Your task to perform on an android device: turn on location history Image 0: 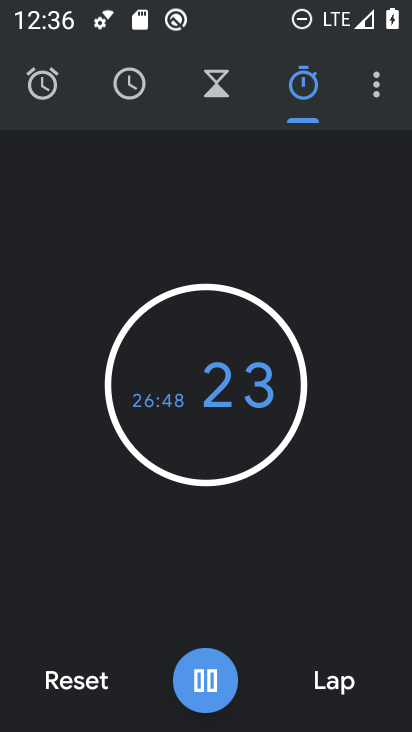
Step 0: press home button
Your task to perform on an android device: turn on location history Image 1: 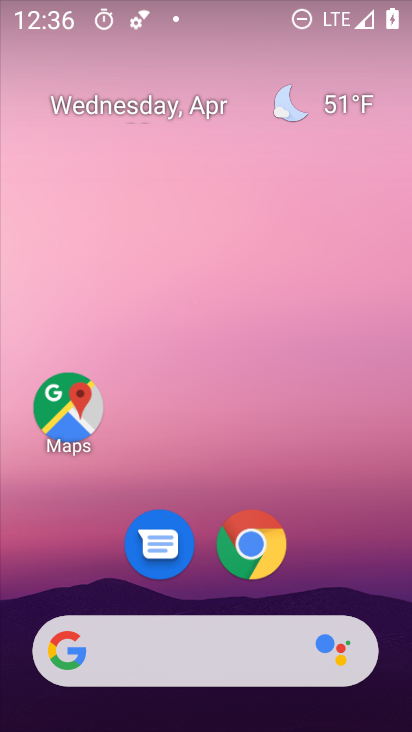
Step 1: drag from (316, 580) to (313, 107)
Your task to perform on an android device: turn on location history Image 2: 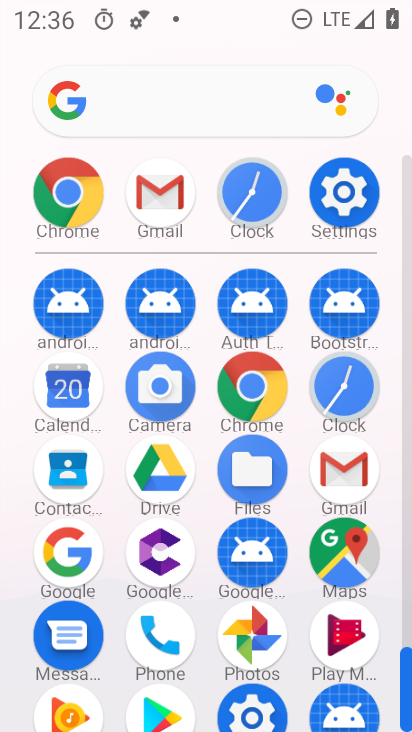
Step 2: click (335, 202)
Your task to perform on an android device: turn on location history Image 3: 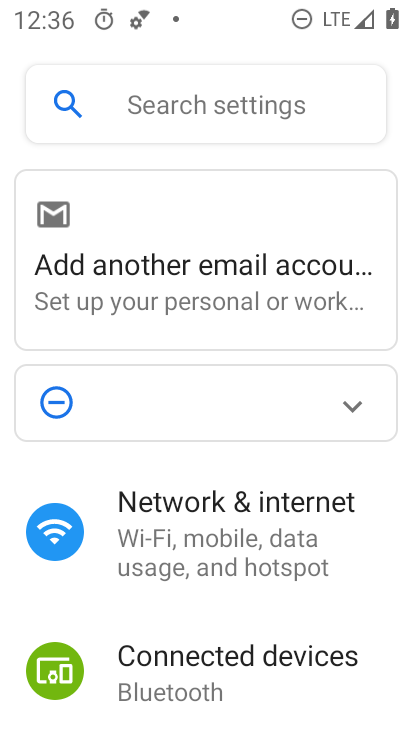
Step 3: drag from (371, 589) to (392, 439)
Your task to perform on an android device: turn on location history Image 4: 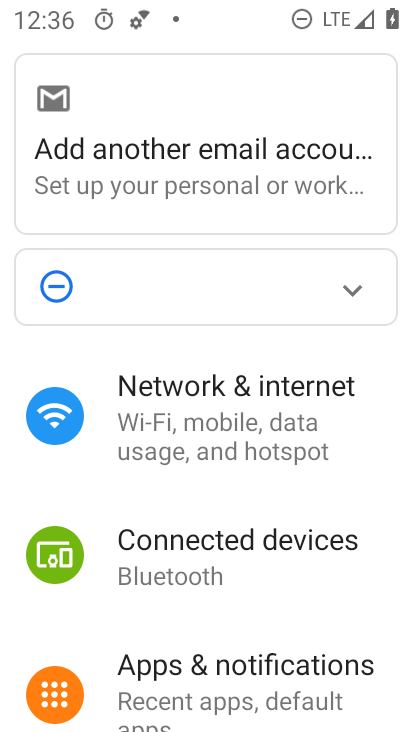
Step 4: drag from (369, 588) to (370, 418)
Your task to perform on an android device: turn on location history Image 5: 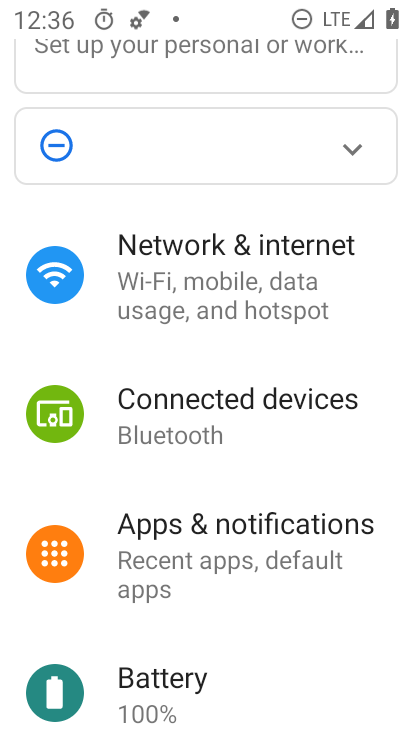
Step 5: drag from (379, 626) to (371, 463)
Your task to perform on an android device: turn on location history Image 6: 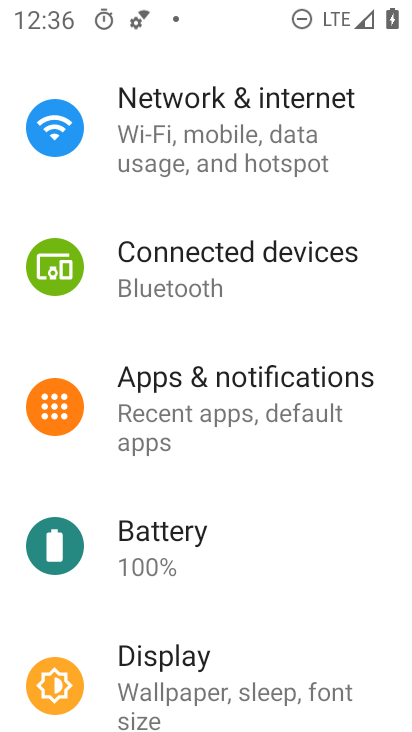
Step 6: drag from (376, 642) to (373, 467)
Your task to perform on an android device: turn on location history Image 7: 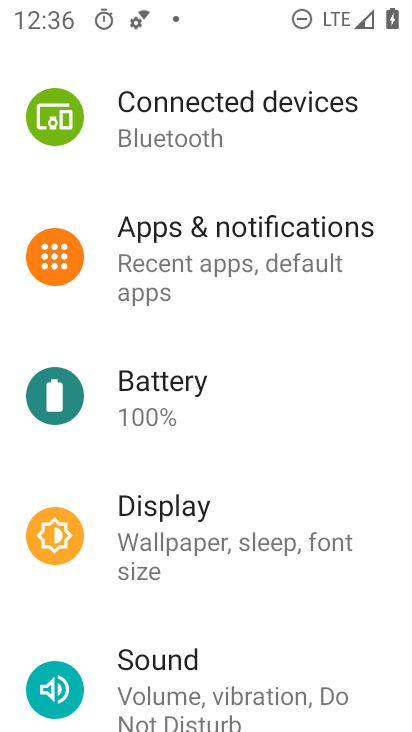
Step 7: drag from (370, 634) to (373, 499)
Your task to perform on an android device: turn on location history Image 8: 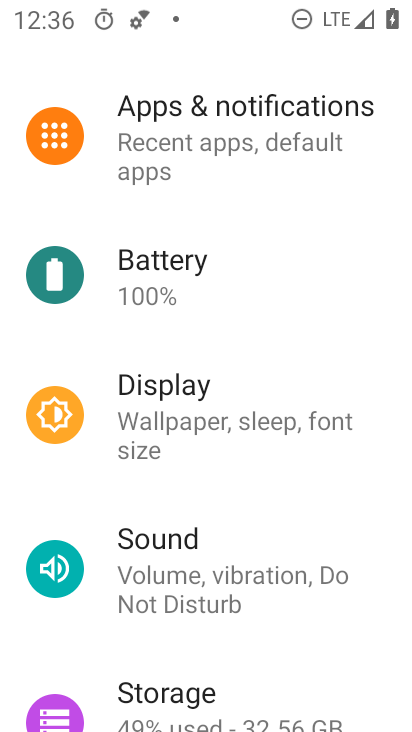
Step 8: drag from (373, 661) to (374, 525)
Your task to perform on an android device: turn on location history Image 9: 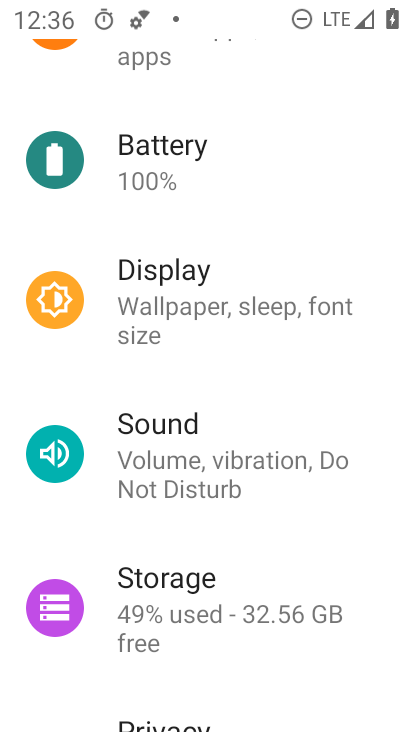
Step 9: drag from (370, 681) to (373, 537)
Your task to perform on an android device: turn on location history Image 10: 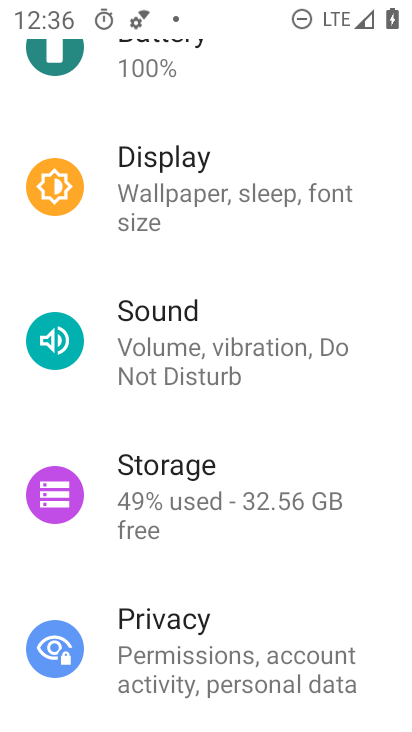
Step 10: drag from (375, 679) to (372, 565)
Your task to perform on an android device: turn on location history Image 11: 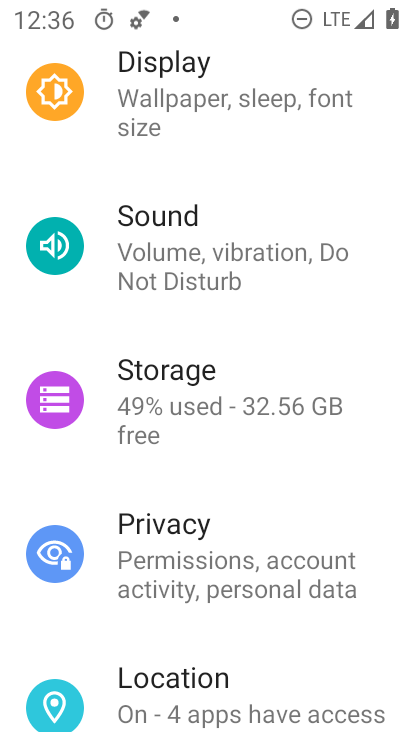
Step 11: drag from (380, 668) to (381, 499)
Your task to perform on an android device: turn on location history Image 12: 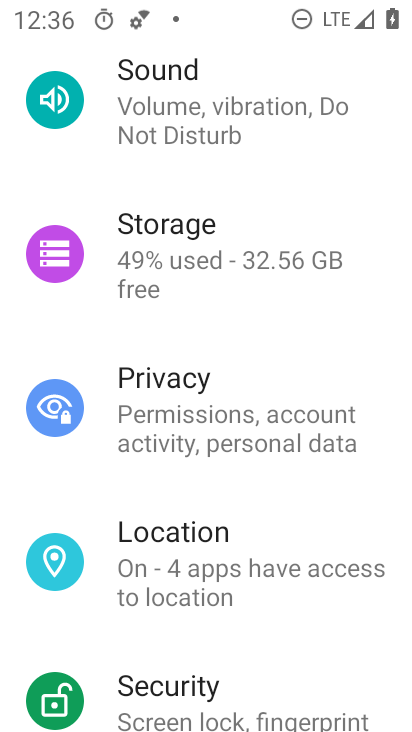
Step 12: drag from (374, 624) to (377, 479)
Your task to perform on an android device: turn on location history Image 13: 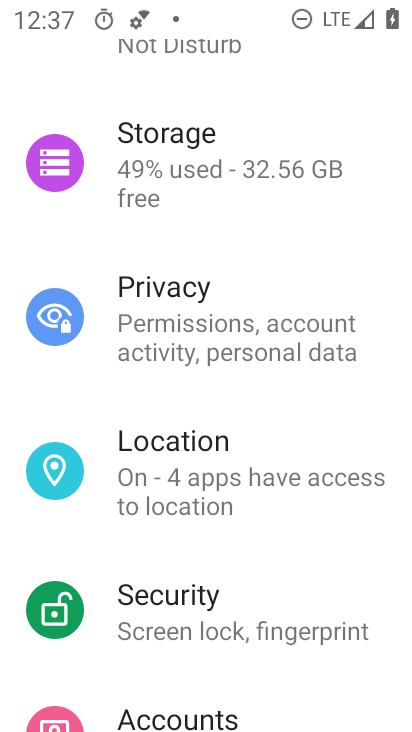
Step 13: click (181, 472)
Your task to perform on an android device: turn on location history Image 14: 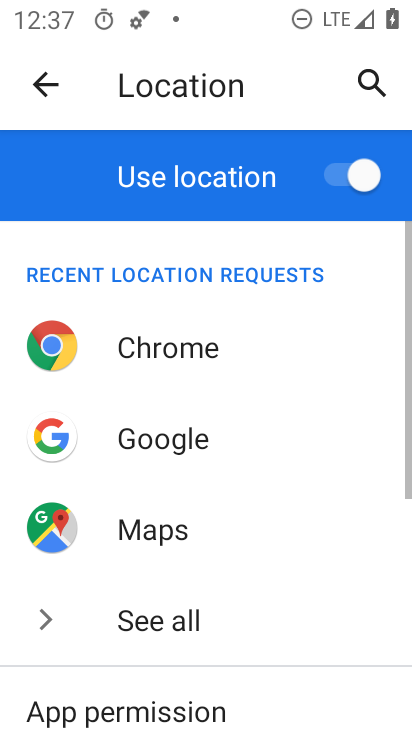
Step 14: drag from (339, 619) to (337, 506)
Your task to perform on an android device: turn on location history Image 15: 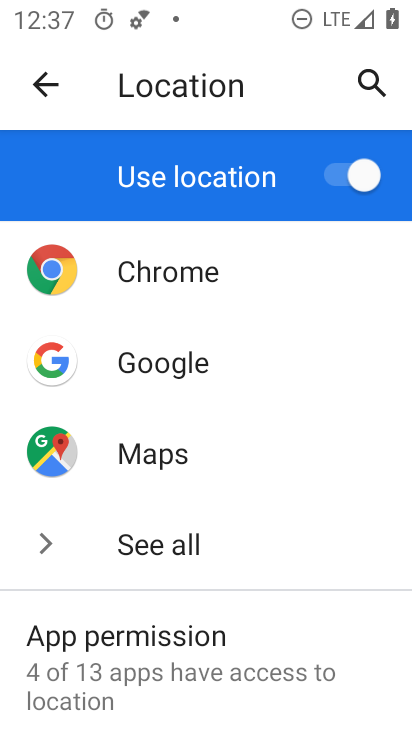
Step 15: drag from (363, 675) to (362, 539)
Your task to perform on an android device: turn on location history Image 16: 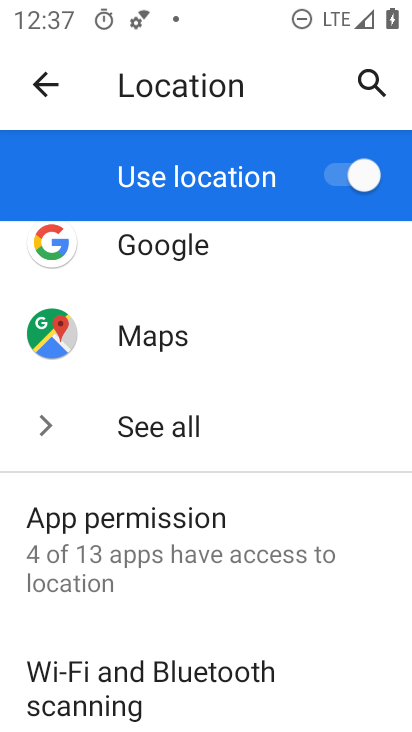
Step 16: drag from (359, 664) to (358, 556)
Your task to perform on an android device: turn on location history Image 17: 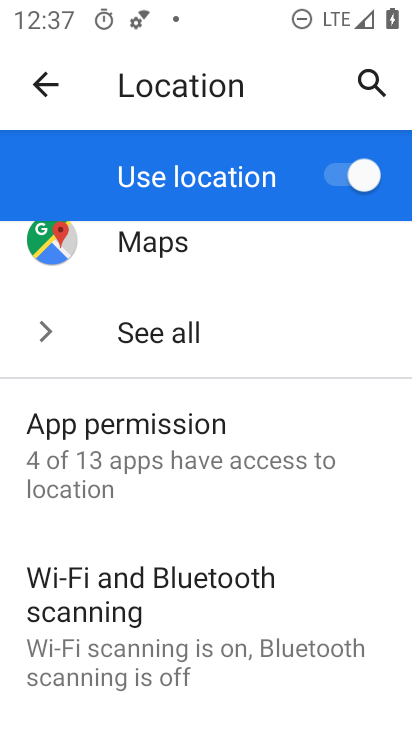
Step 17: drag from (372, 685) to (382, 567)
Your task to perform on an android device: turn on location history Image 18: 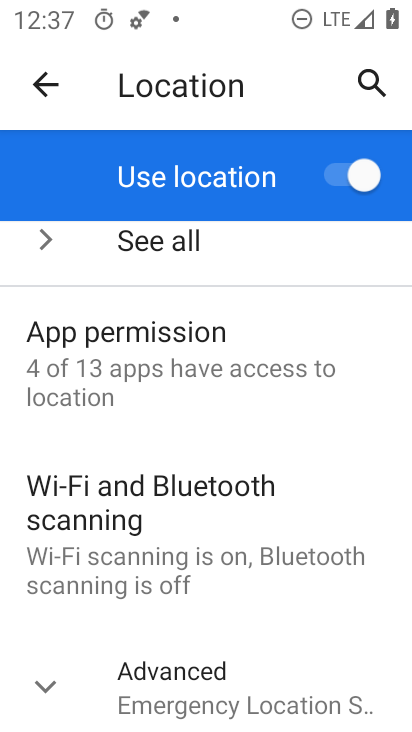
Step 18: drag from (367, 656) to (361, 491)
Your task to perform on an android device: turn on location history Image 19: 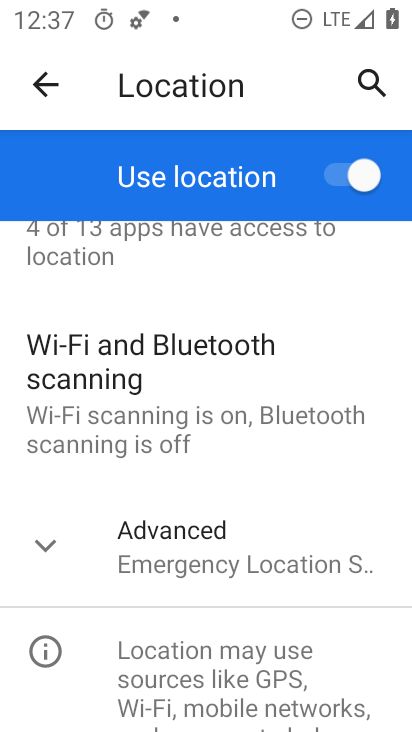
Step 19: click (216, 557)
Your task to perform on an android device: turn on location history Image 20: 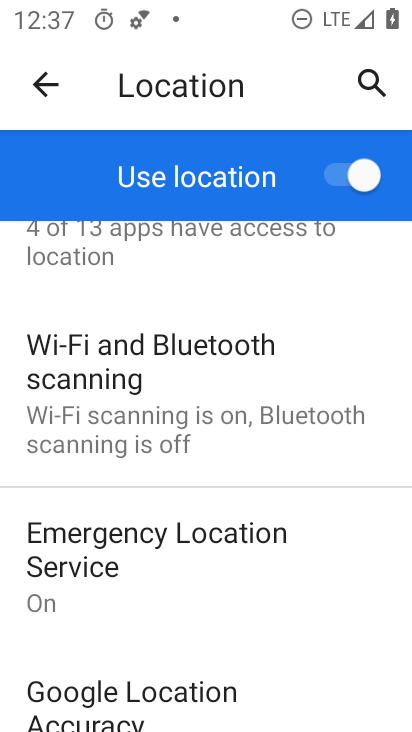
Step 20: drag from (351, 646) to (351, 464)
Your task to perform on an android device: turn on location history Image 21: 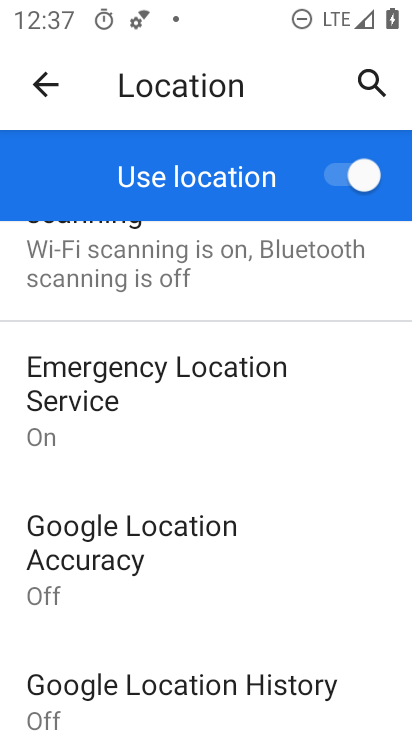
Step 21: drag from (368, 672) to (355, 496)
Your task to perform on an android device: turn on location history Image 22: 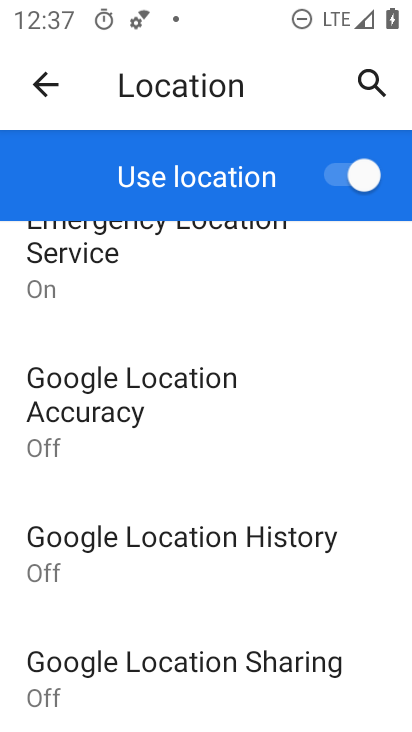
Step 22: drag from (365, 672) to (366, 532)
Your task to perform on an android device: turn on location history Image 23: 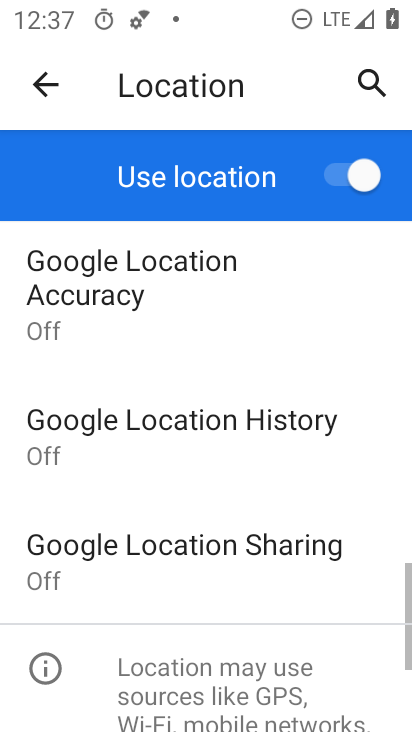
Step 23: click (123, 430)
Your task to perform on an android device: turn on location history Image 24: 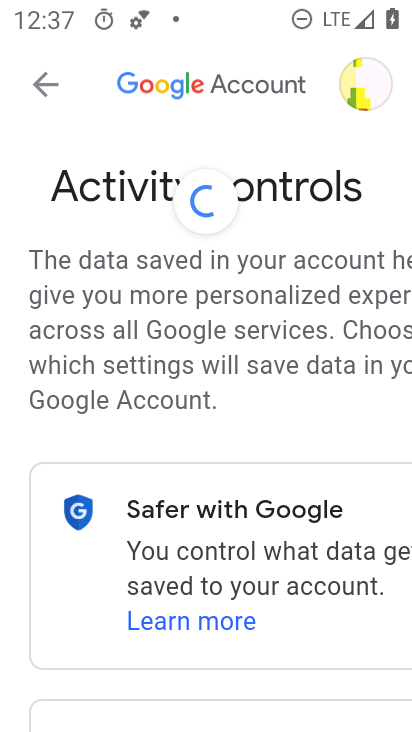
Step 24: drag from (308, 604) to (319, 386)
Your task to perform on an android device: turn on location history Image 25: 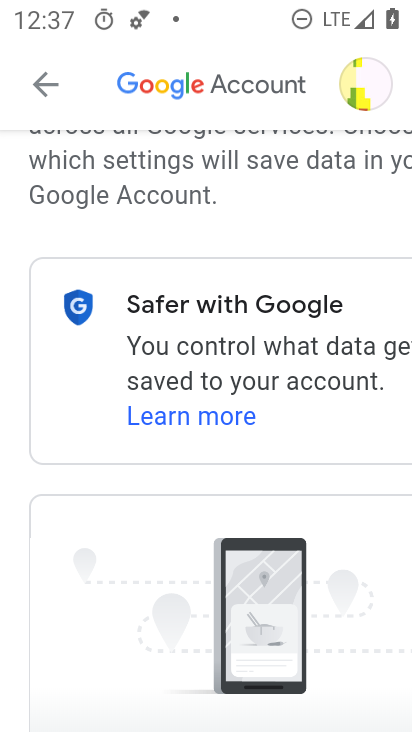
Step 25: drag from (344, 647) to (348, 419)
Your task to perform on an android device: turn on location history Image 26: 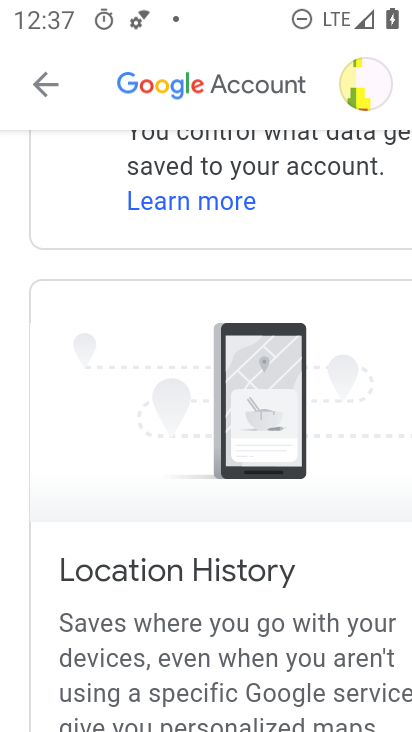
Step 26: drag from (323, 586) to (332, 434)
Your task to perform on an android device: turn on location history Image 27: 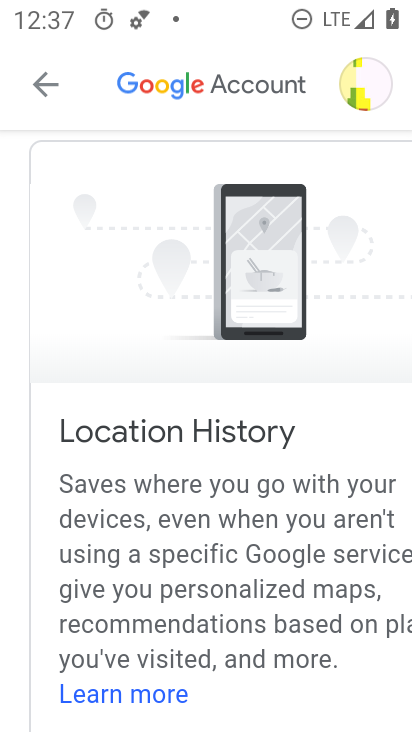
Step 27: drag from (299, 610) to (304, 468)
Your task to perform on an android device: turn on location history Image 28: 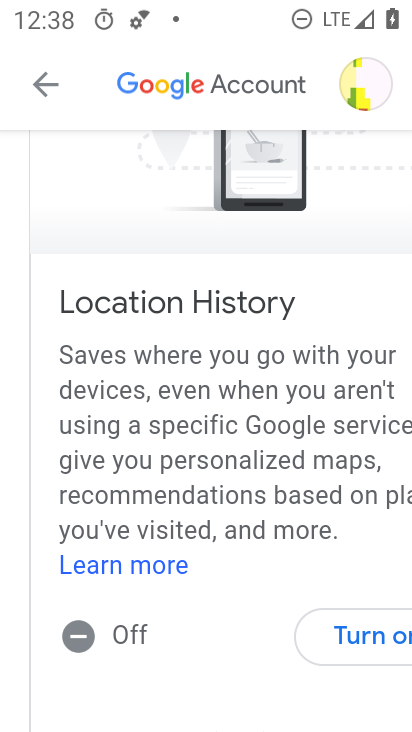
Step 28: click (366, 634)
Your task to perform on an android device: turn on location history Image 29: 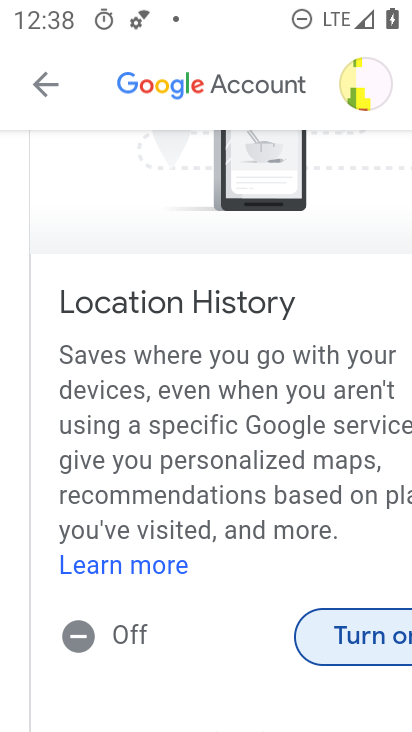
Step 29: click (378, 638)
Your task to perform on an android device: turn on location history Image 30: 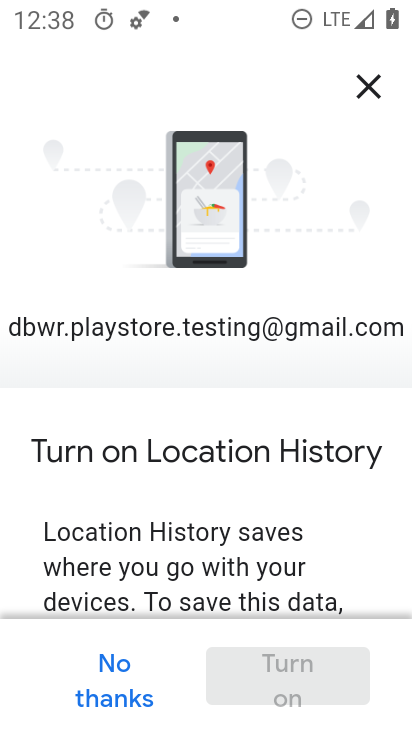
Step 30: drag from (350, 573) to (343, 425)
Your task to perform on an android device: turn on location history Image 31: 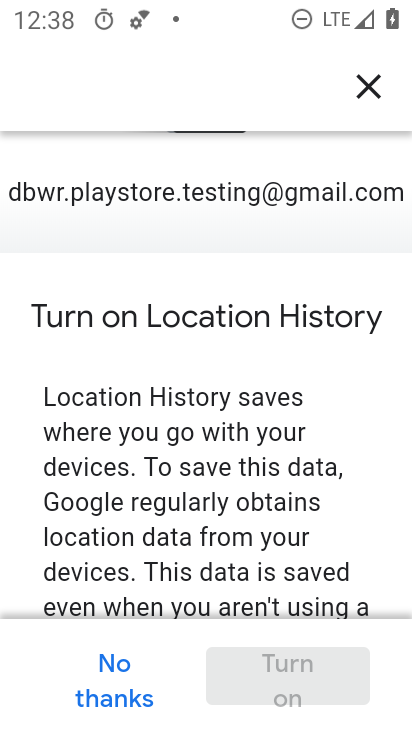
Step 31: drag from (380, 558) to (376, 409)
Your task to perform on an android device: turn on location history Image 32: 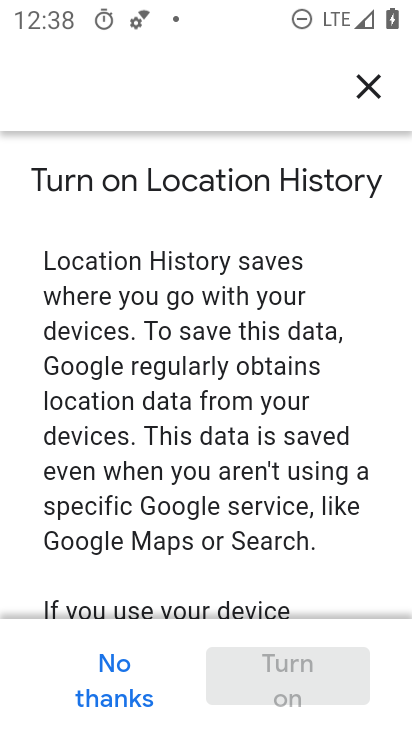
Step 32: drag from (370, 559) to (373, 431)
Your task to perform on an android device: turn on location history Image 33: 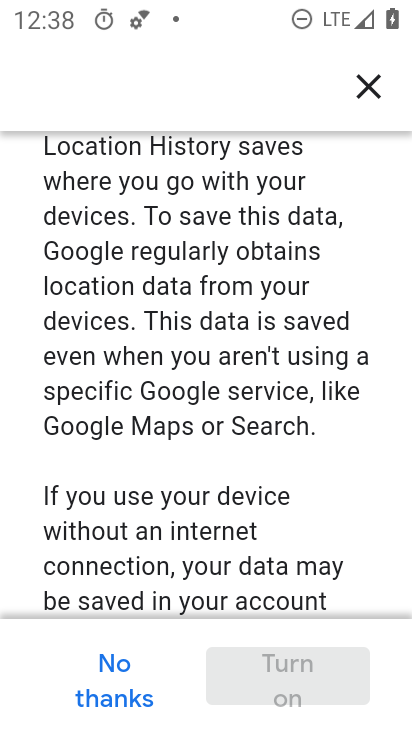
Step 33: drag from (369, 550) to (371, 460)
Your task to perform on an android device: turn on location history Image 34: 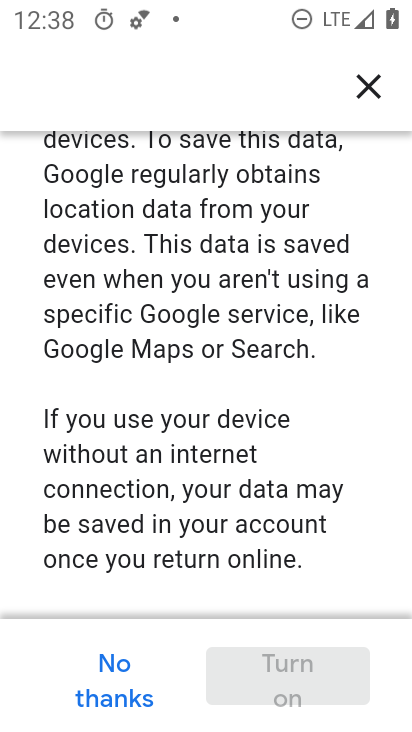
Step 34: drag from (370, 562) to (378, 443)
Your task to perform on an android device: turn on location history Image 35: 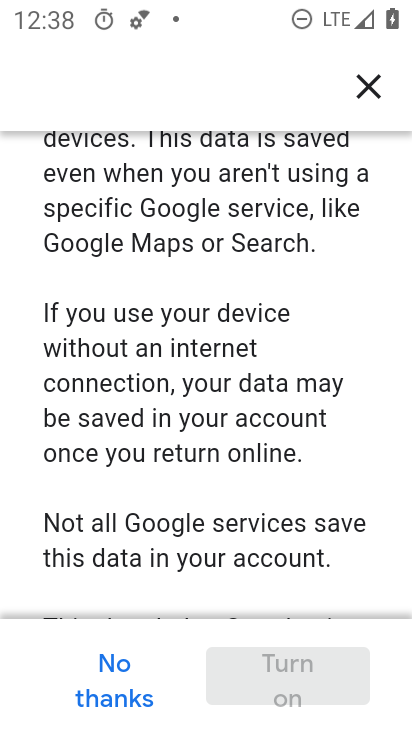
Step 35: drag from (363, 575) to (372, 433)
Your task to perform on an android device: turn on location history Image 36: 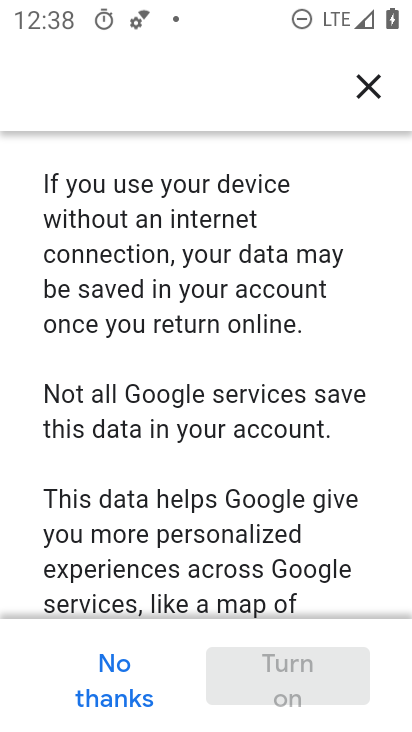
Step 36: drag from (372, 543) to (391, 406)
Your task to perform on an android device: turn on location history Image 37: 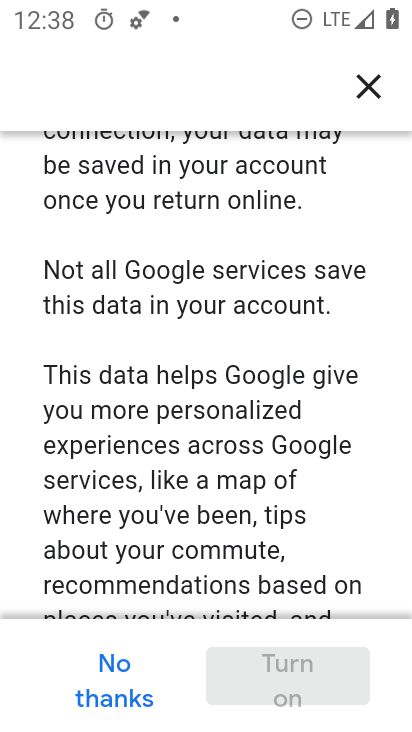
Step 37: drag from (372, 540) to (372, 422)
Your task to perform on an android device: turn on location history Image 38: 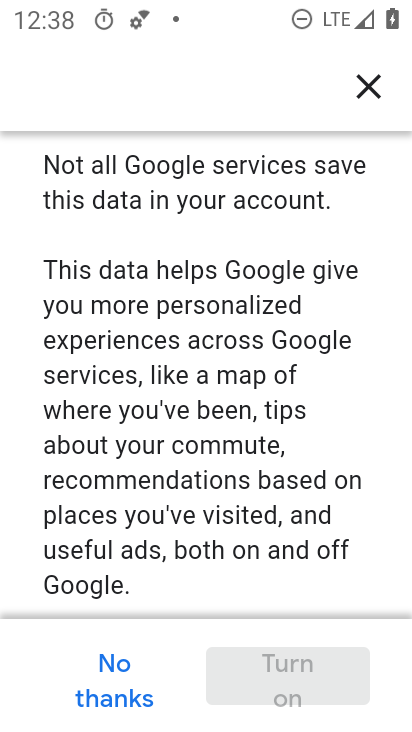
Step 38: drag from (363, 573) to (378, 440)
Your task to perform on an android device: turn on location history Image 39: 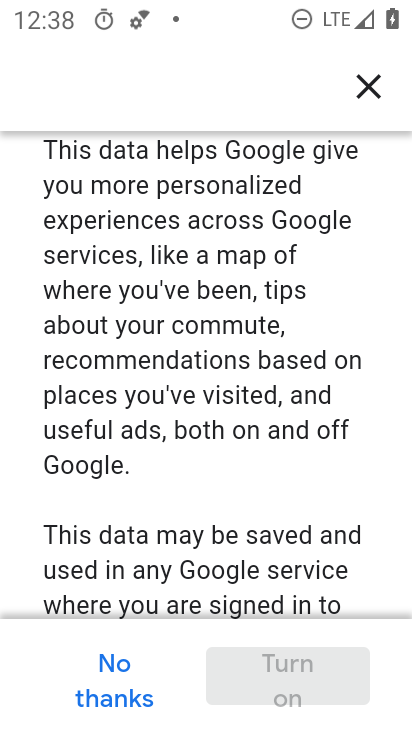
Step 39: drag from (371, 582) to (371, 431)
Your task to perform on an android device: turn on location history Image 40: 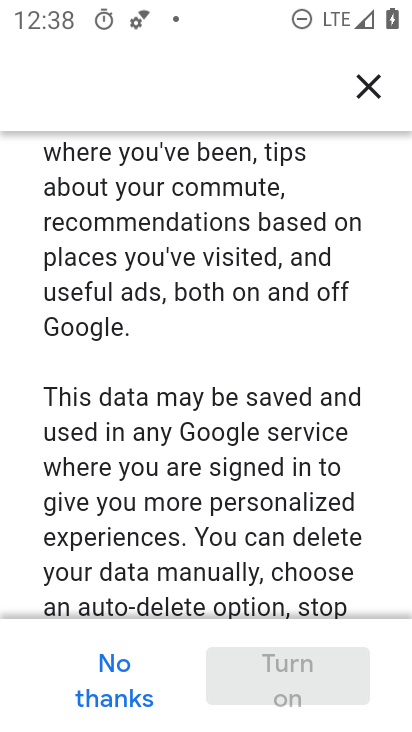
Step 40: drag from (382, 494) to (376, 396)
Your task to perform on an android device: turn on location history Image 41: 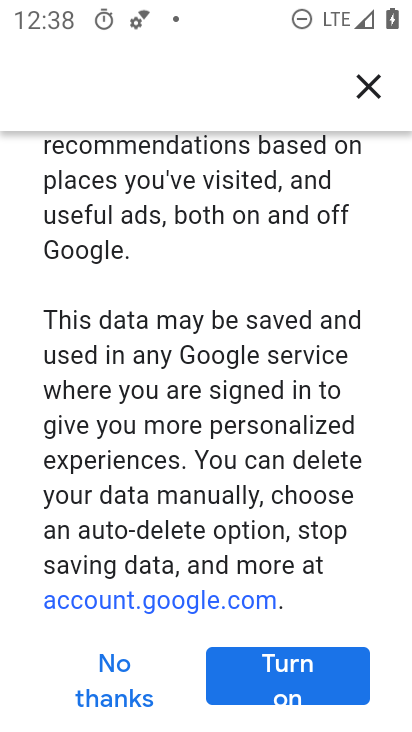
Step 41: click (269, 681)
Your task to perform on an android device: turn on location history Image 42: 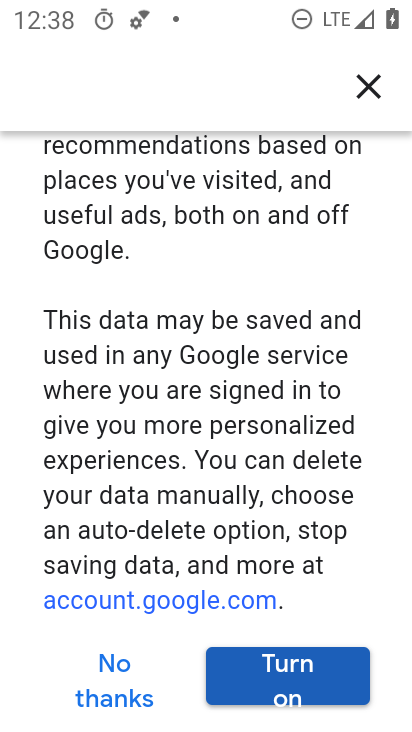
Step 42: click (269, 681)
Your task to perform on an android device: turn on location history Image 43: 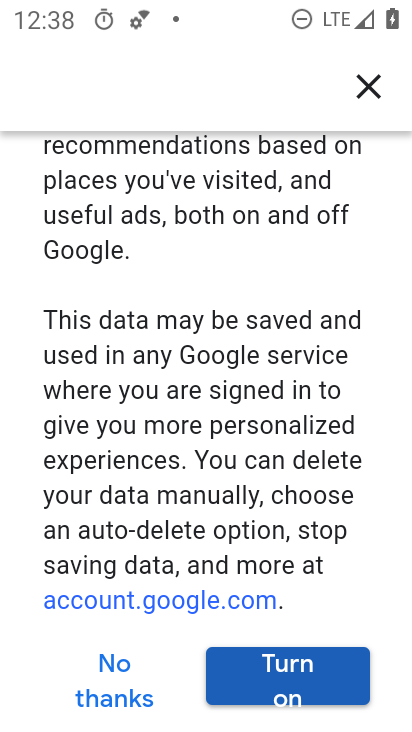
Step 43: click (280, 681)
Your task to perform on an android device: turn on location history Image 44: 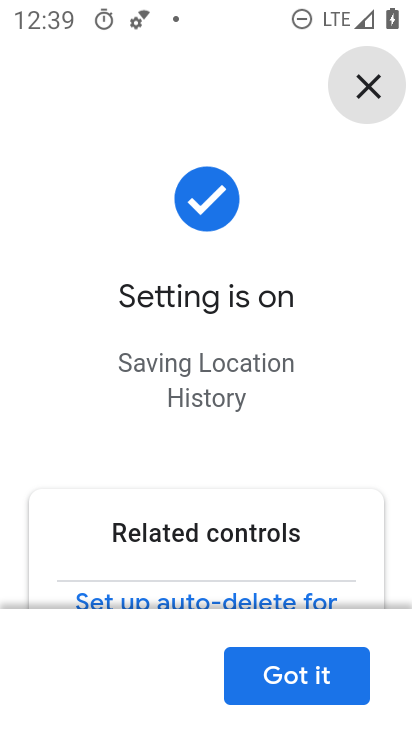
Step 44: task complete